Your task to perform on an android device: turn on wifi Image 0: 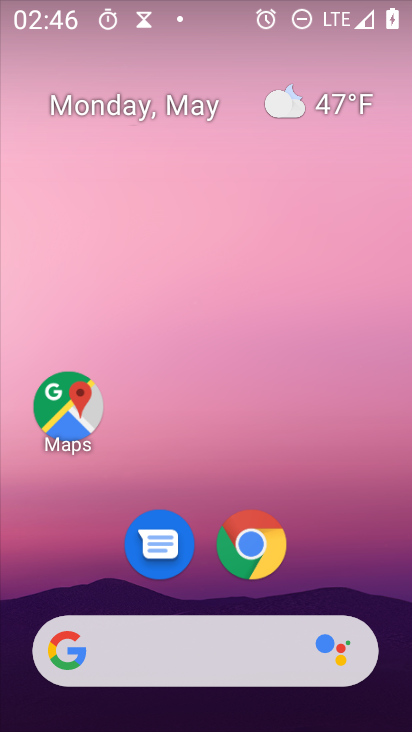
Step 0: drag from (287, 630) to (307, 10)
Your task to perform on an android device: turn on wifi Image 1: 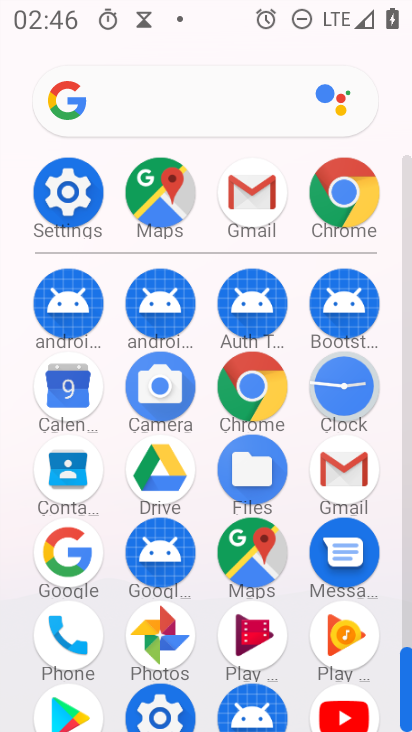
Step 1: click (65, 207)
Your task to perform on an android device: turn on wifi Image 2: 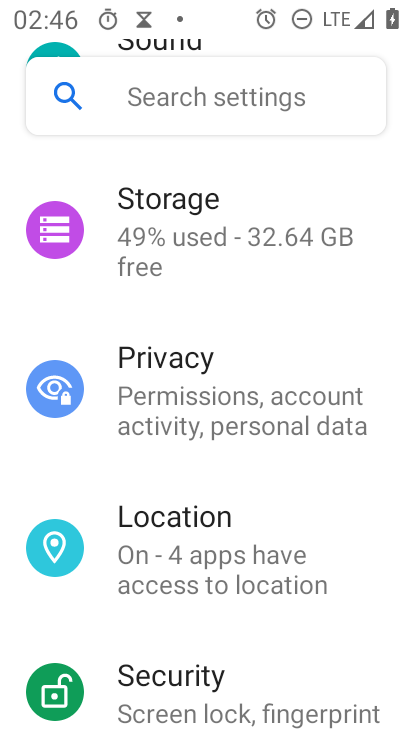
Step 2: drag from (220, 214) to (224, 730)
Your task to perform on an android device: turn on wifi Image 3: 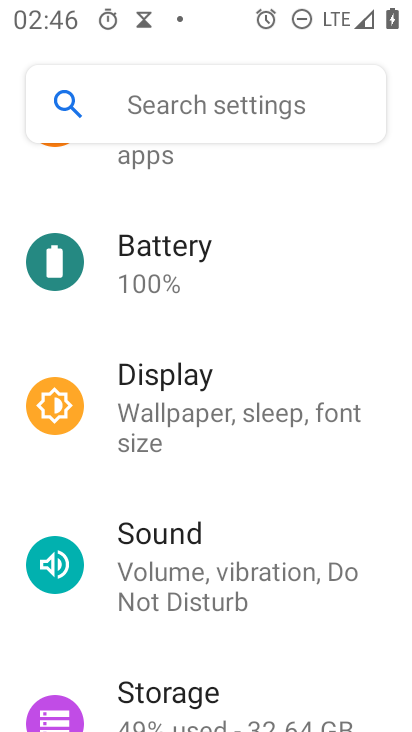
Step 3: drag from (237, 216) to (217, 716)
Your task to perform on an android device: turn on wifi Image 4: 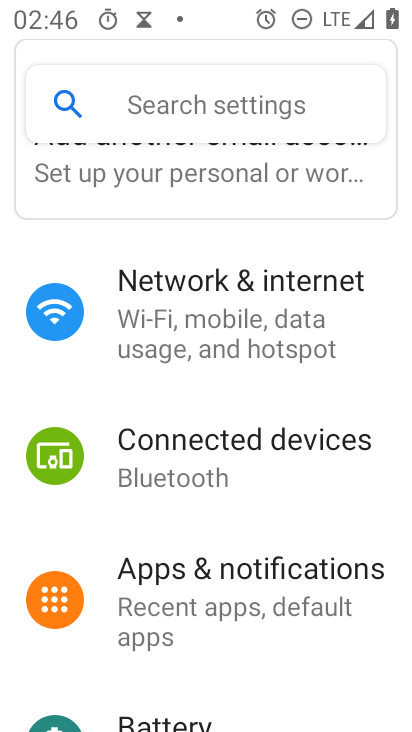
Step 4: drag from (222, 307) to (237, 630)
Your task to perform on an android device: turn on wifi Image 5: 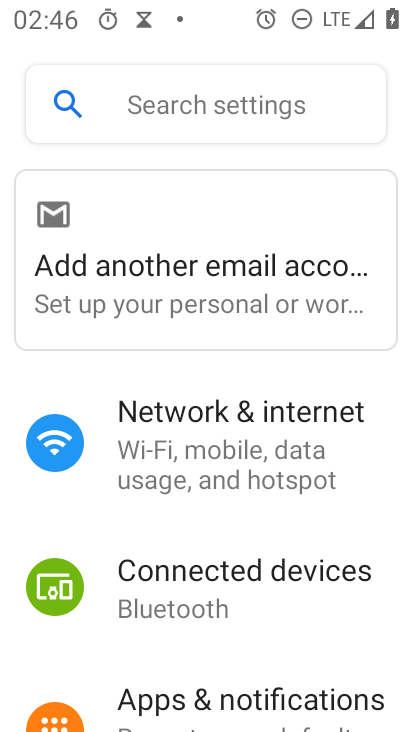
Step 5: click (271, 459)
Your task to perform on an android device: turn on wifi Image 6: 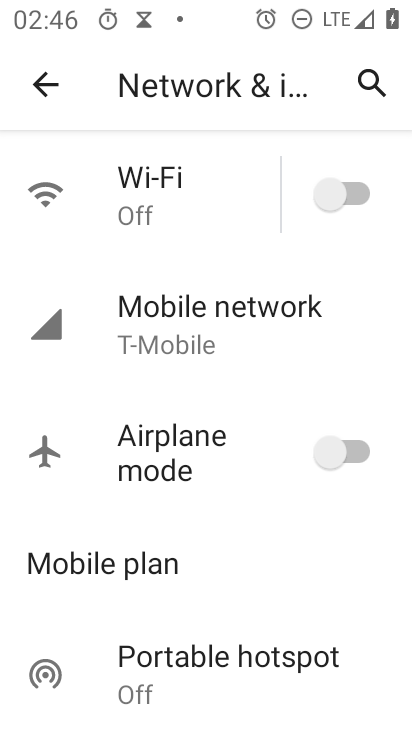
Step 6: click (361, 193)
Your task to perform on an android device: turn on wifi Image 7: 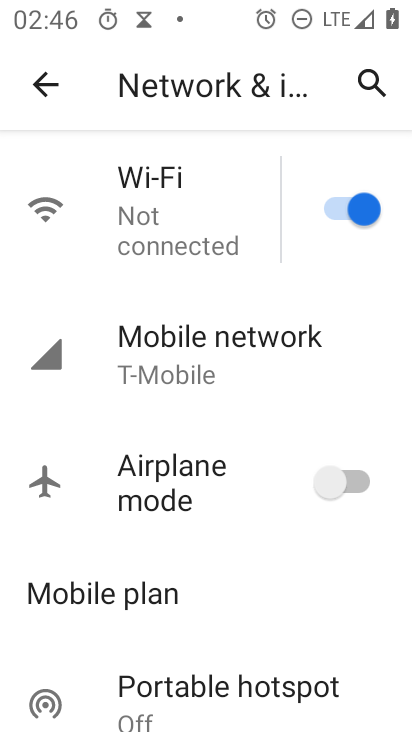
Step 7: task complete